Your task to perform on an android device: Search for panasonic triple a on newegg, select the first entry, add it to the cart, then select checkout. Image 0: 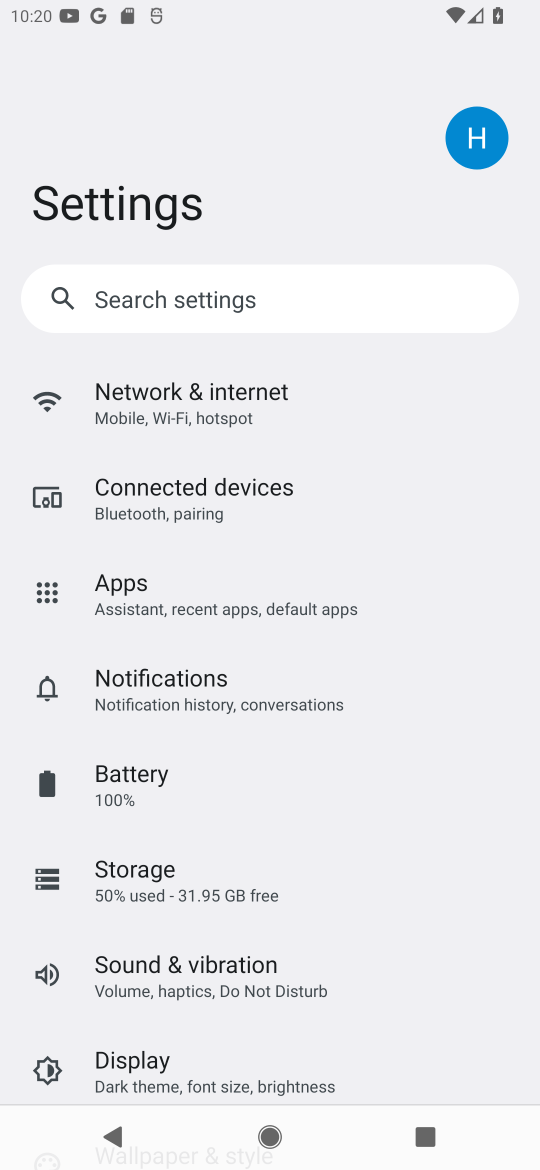
Step 0: press home button
Your task to perform on an android device: Search for panasonic triple a on newegg, select the first entry, add it to the cart, then select checkout. Image 1: 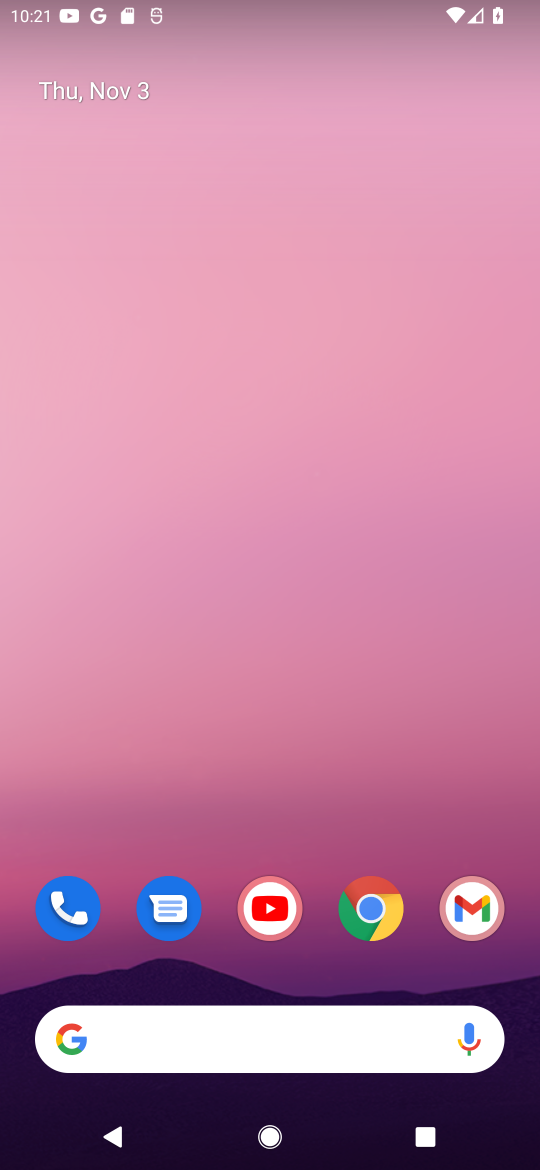
Step 1: click (368, 914)
Your task to perform on an android device: Search for panasonic triple a on newegg, select the first entry, add it to the cart, then select checkout. Image 2: 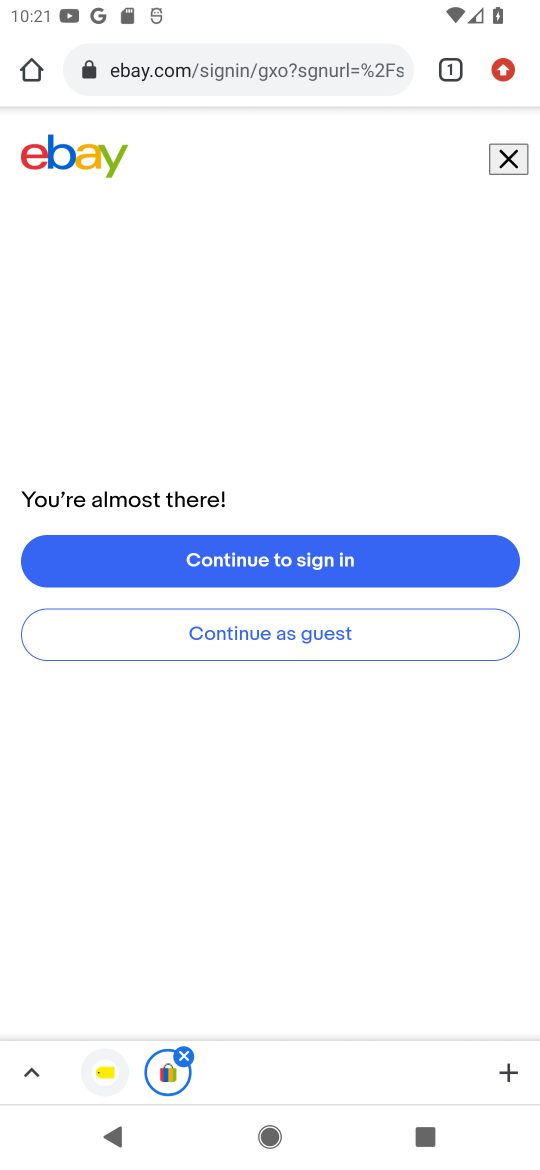
Step 2: click (35, 69)
Your task to perform on an android device: Search for panasonic triple a on newegg, select the first entry, add it to the cart, then select checkout. Image 3: 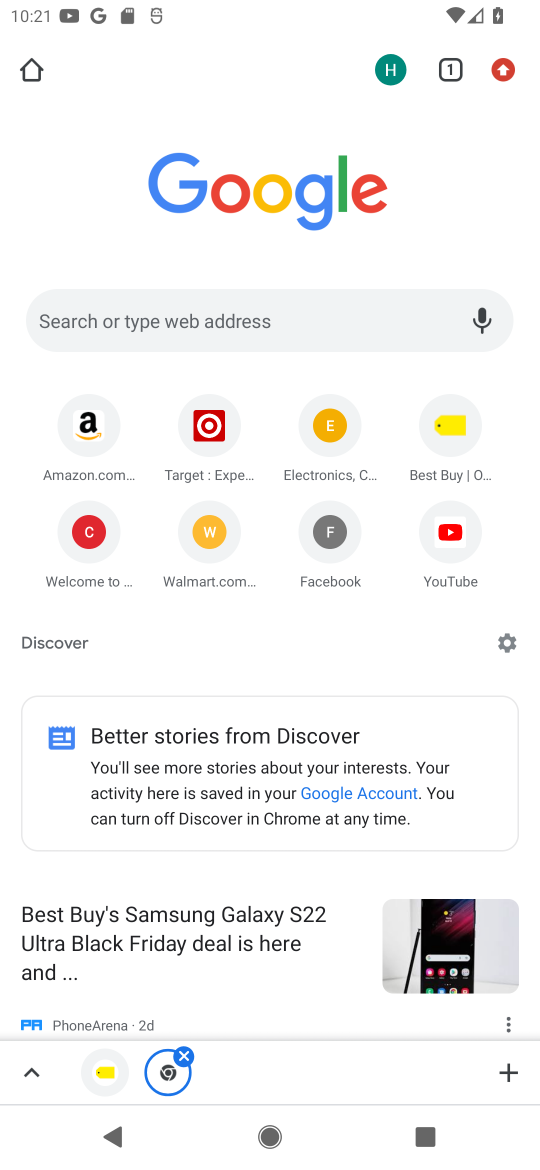
Step 3: click (360, 296)
Your task to perform on an android device: Search for panasonic triple a on newegg, select the first entry, add it to the cart, then select checkout. Image 4: 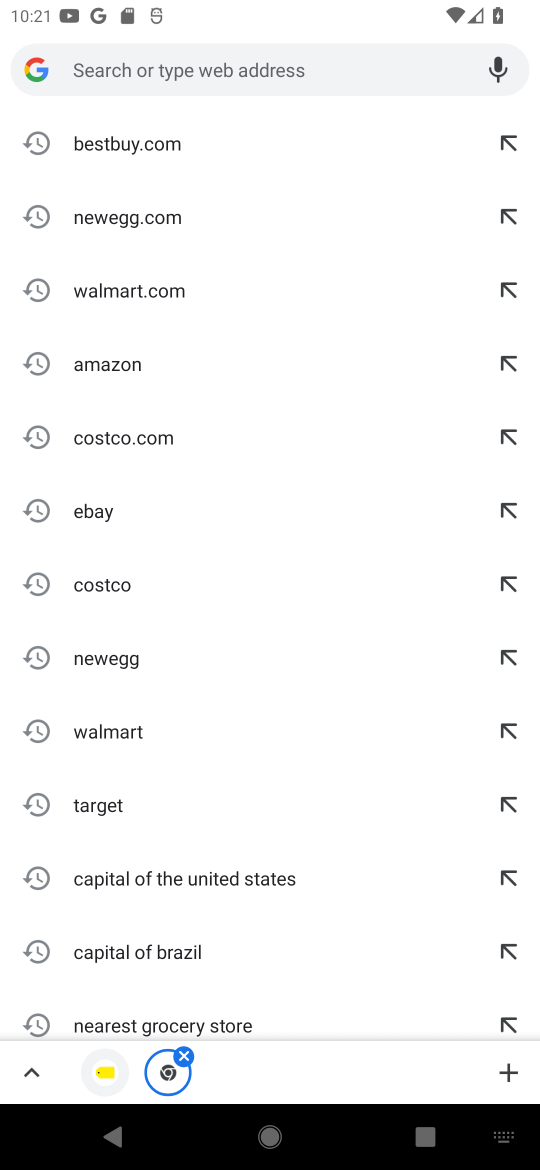
Step 4: click (169, 220)
Your task to perform on an android device: Search for panasonic triple a on newegg, select the first entry, add it to the cart, then select checkout. Image 5: 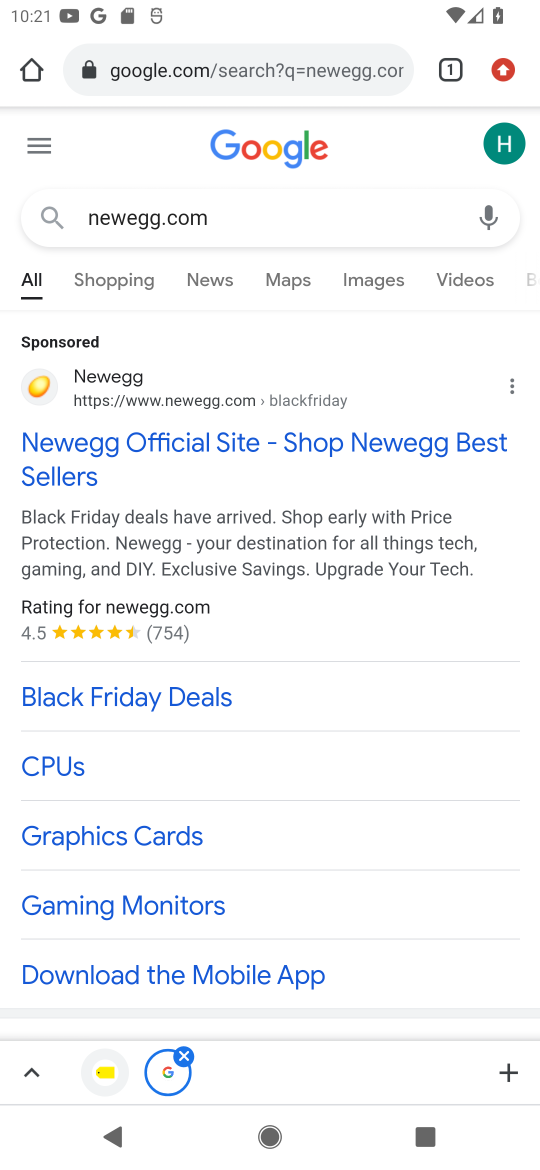
Step 5: click (128, 387)
Your task to perform on an android device: Search for panasonic triple a on newegg, select the first entry, add it to the cart, then select checkout. Image 6: 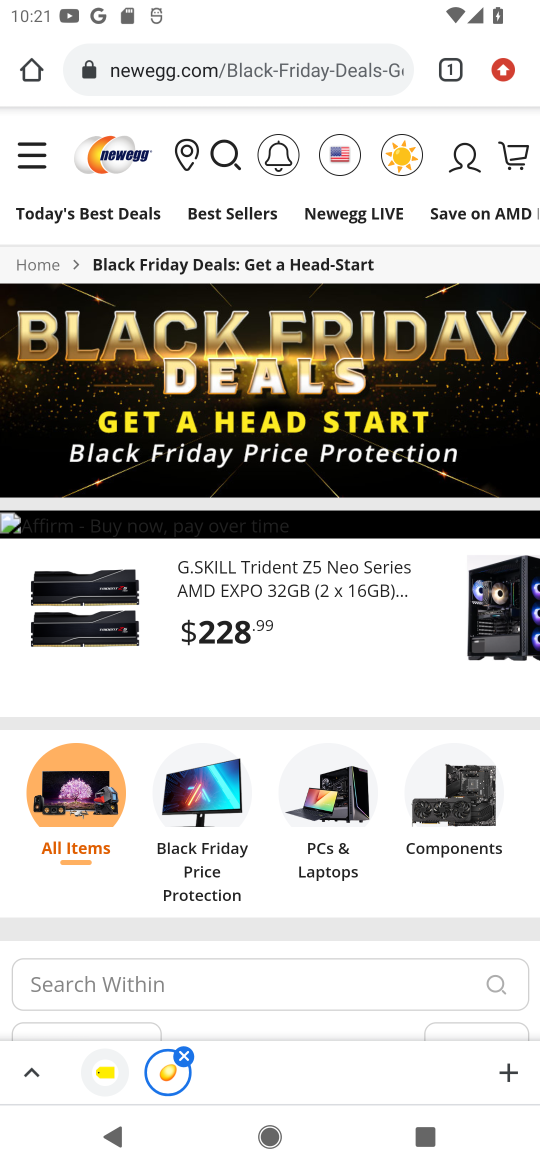
Step 6: click (227, 151)
Your task to perform on an android device: Search for panasonic triple a on newegg, select the first entry, add it to the cart, then select checkout. Image 7: 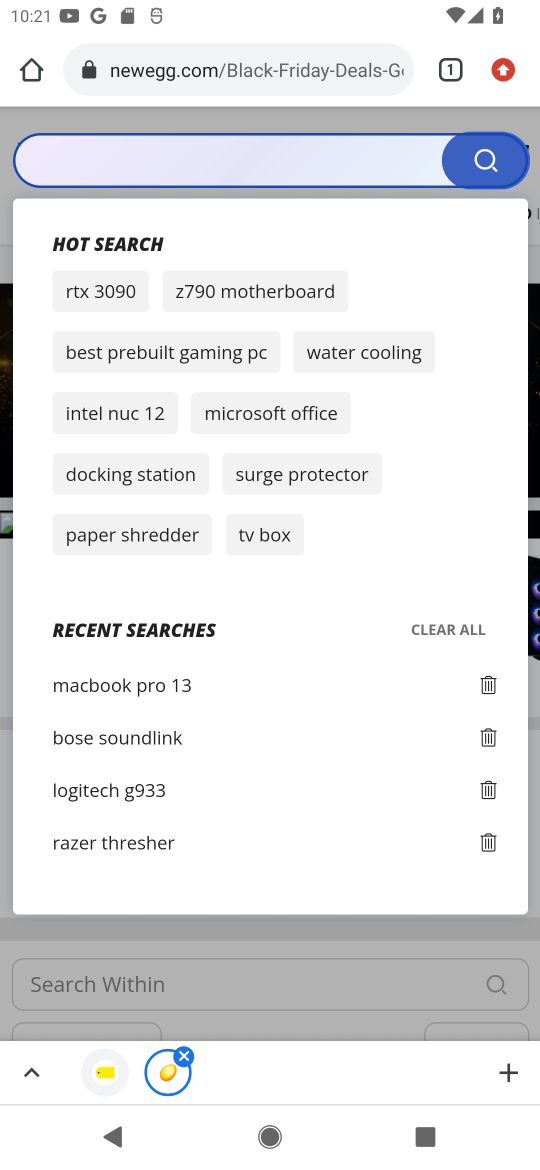
Step 7: type "panasonic triple a"
Your task to perform on an android device: Search for panasonic triple a on newegg, select the first entry, add it to the cart, then select checkout. Image 8: 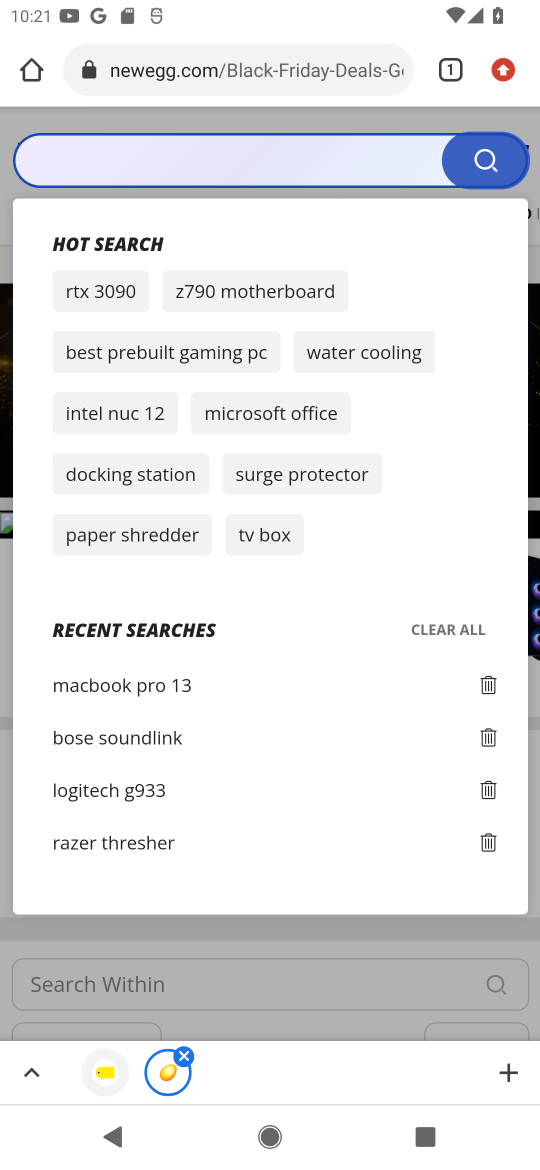
Step 8: press enter
Your task to perform on an android device: Search for panasonic triple a on newegg, select the first entry, add it to the cart, then select checkout. Image 9: 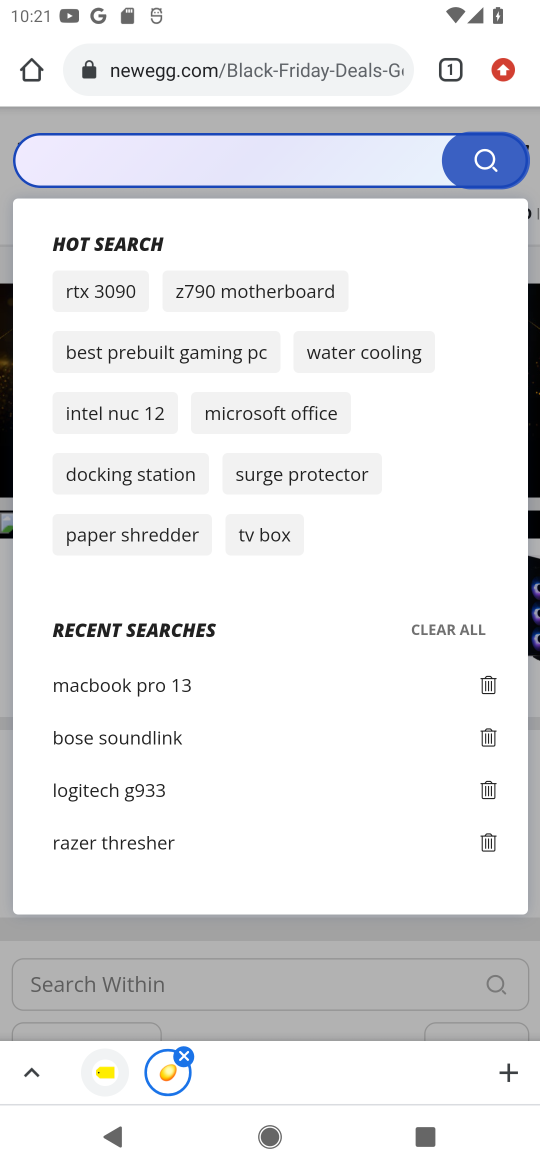
Step 9: press enter
Your task to perform on an android device: Search for panasonic triple a on newegg, select the first entry, add it to the cart, then select checkout. Image 10: 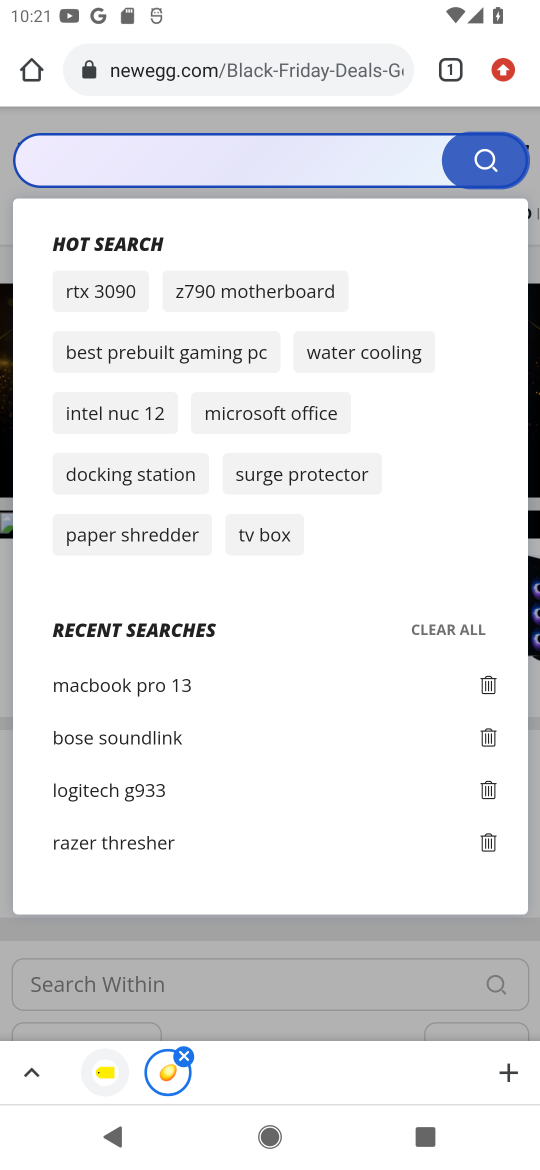
Step 10: click (73, 111)
Your task to perform on an android device: Search for panasonic triple a on newegg, select the first entry, add it to the cart, then select checkout. Image 11: 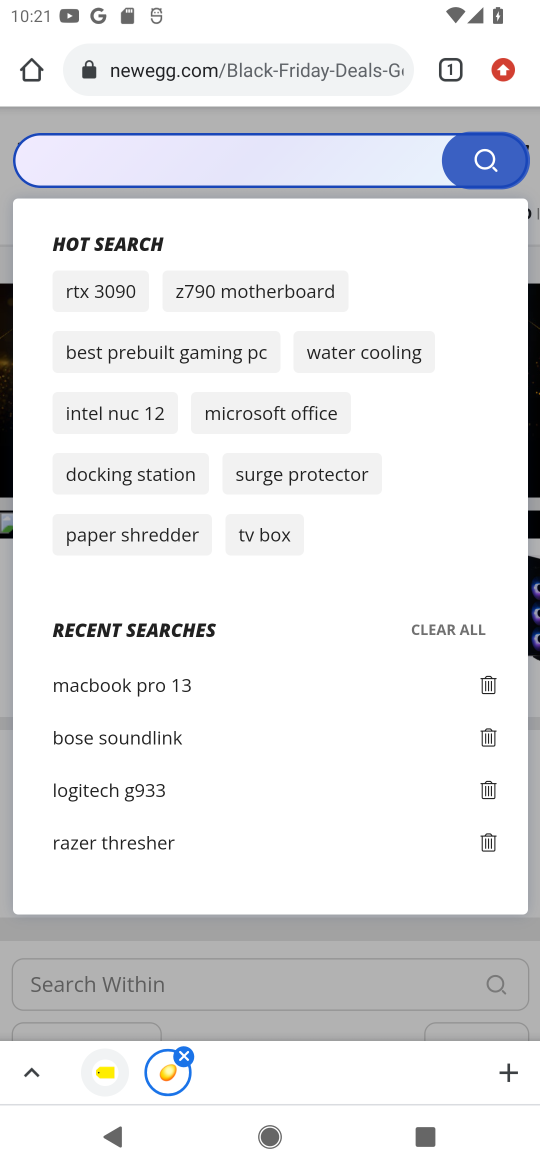
Step 11: click (308, 950)
Your task to perform on an android device: Search for panasonic triple a on newegg, select the first entry, add it to the cart, then select checkout. Image 12: 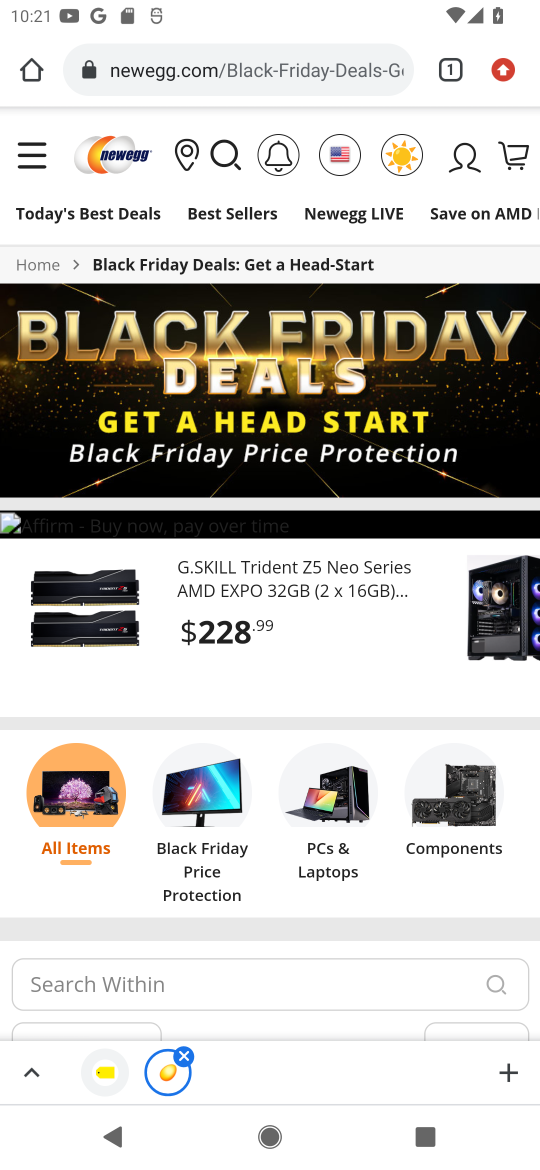
Step 12: click (215, 153)
Your task to perform on an android device: Search for panasonic triple a on newegg, select the first entry, add it to the cart, then select checkout. Image 13: 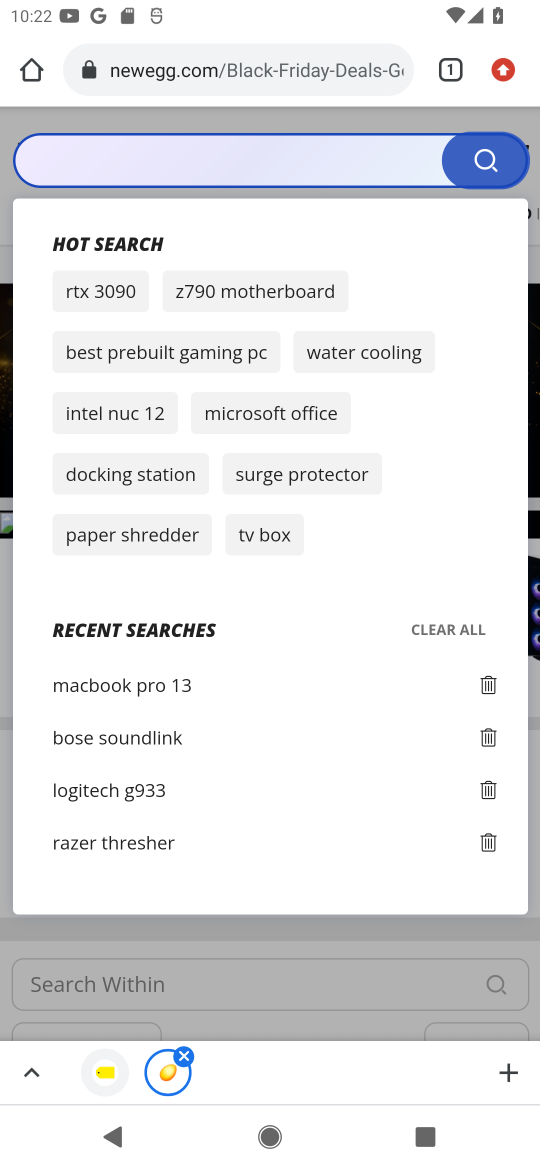
Step 13: task complete